Your task to perform on an android device: find snoozed emails in the gmail app Image 0: 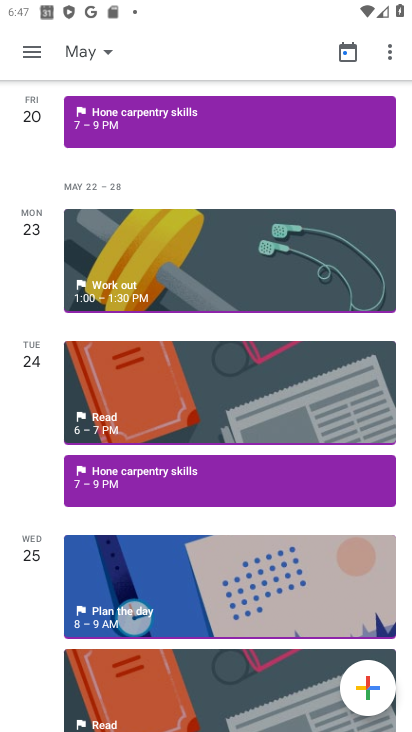
Step 0: press home button
Your task to perform on an android device: find snoozed emails in the gmail app Image 1: 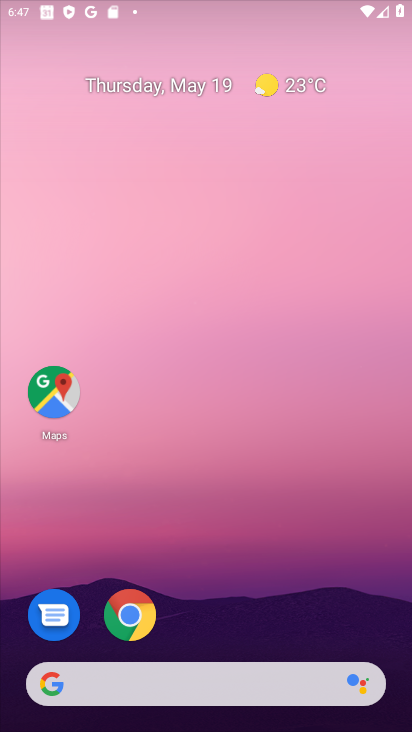
Step 1: drag from (351, 624) to (226, 64)
Your task to perform on an android device: find snoozed emails in the gmail app Image 2: 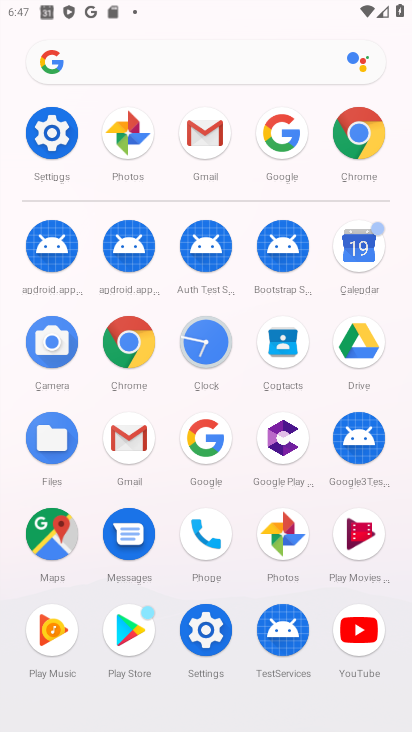
Step 2: click (131, 433)
Your task to perform on an android device: find snoozed emails in the gmail app Image 3: 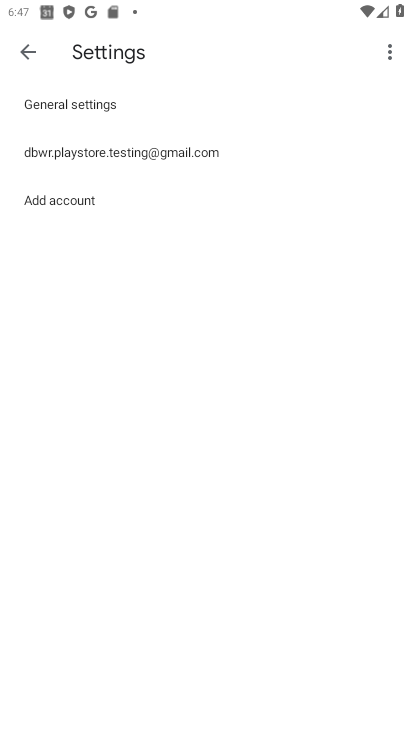
Step 3: press back button
Your task to perform on an android device: find snoozed emails in the gmail app Image 4: 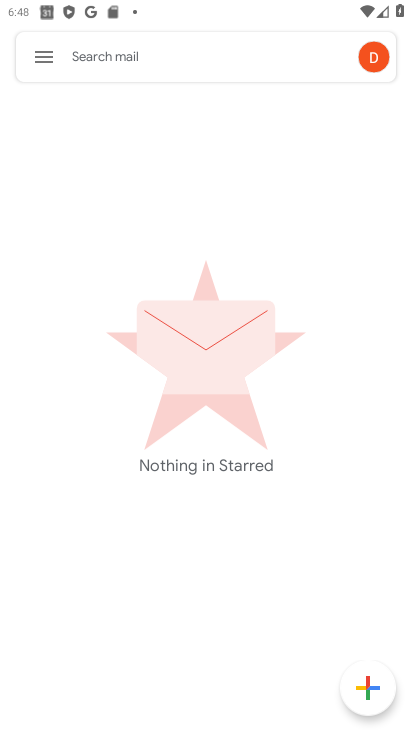
Step 4: click (32, 59)
Your task to perform on an android device: find snoozed emails in the gmail app Image 5: 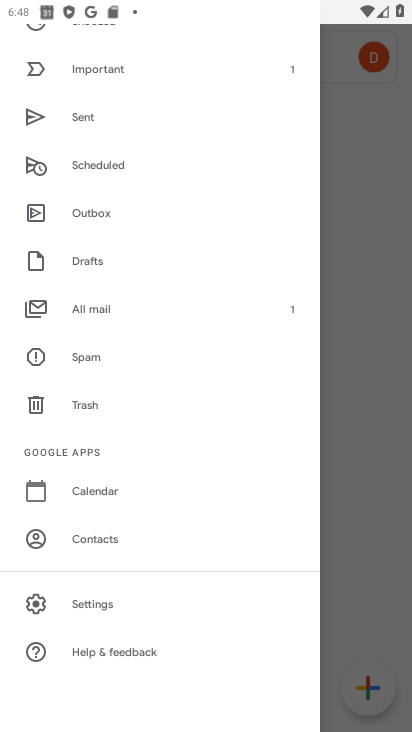
Step 5: drag from (97, 110) to (74, 432)
Your task to perform on an android device: find snoozed emails in the gmail app Image 6: 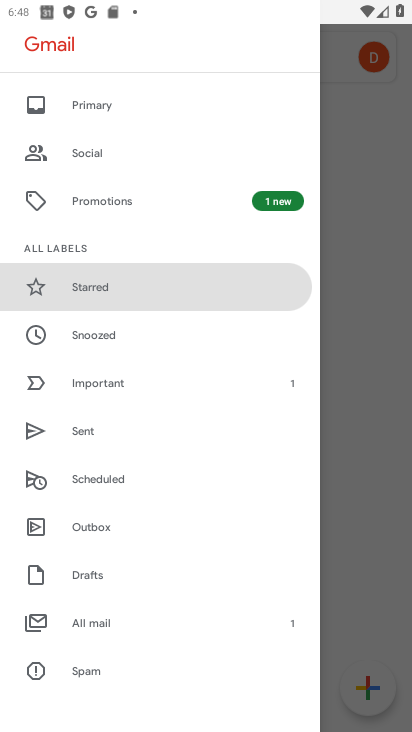
Step 6: click (131, 346)
Your task to perform on an android device: find snoozed emails in the gmail app Image 7: 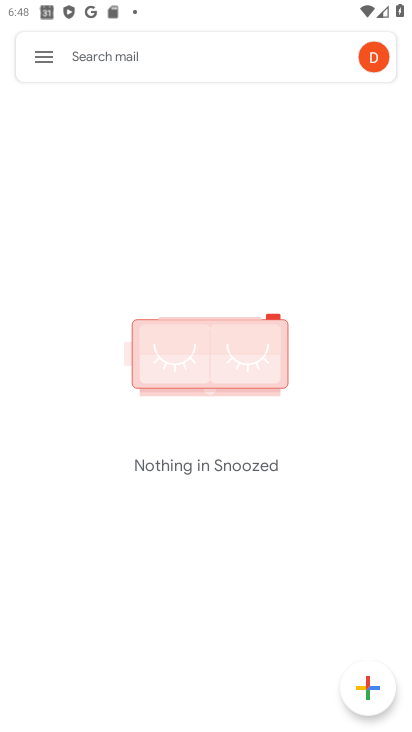
Step 7: task complete